Your task to perform on an android device: Go to Google maps Image 0: 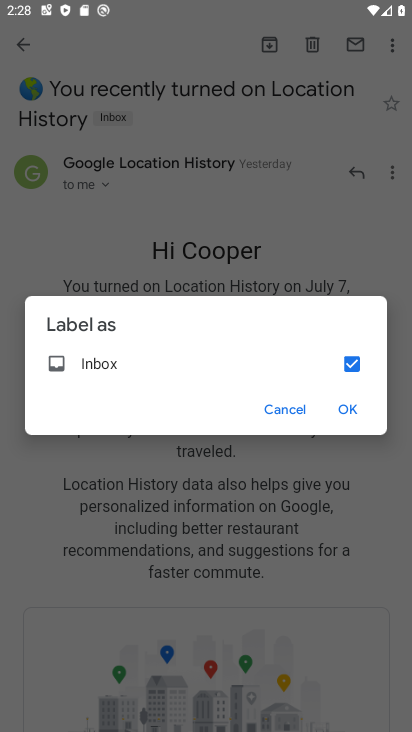
Step 0: click (330, 406)
Your task to perform on an android device: Go to Google maps Image 1: 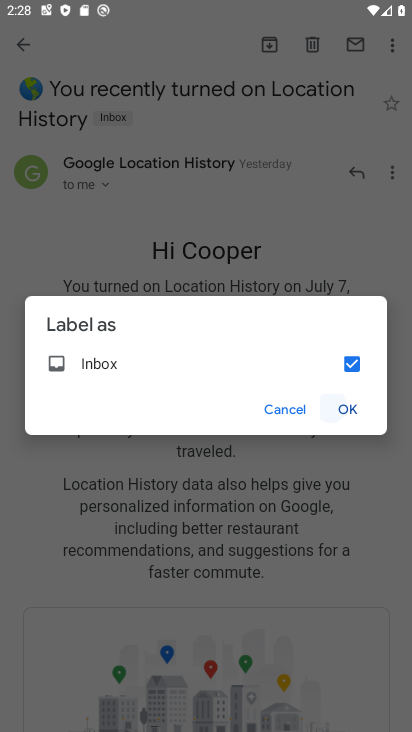
Step 1: press home button
Your task to perform on an android device: Go to Google maps Image 2: 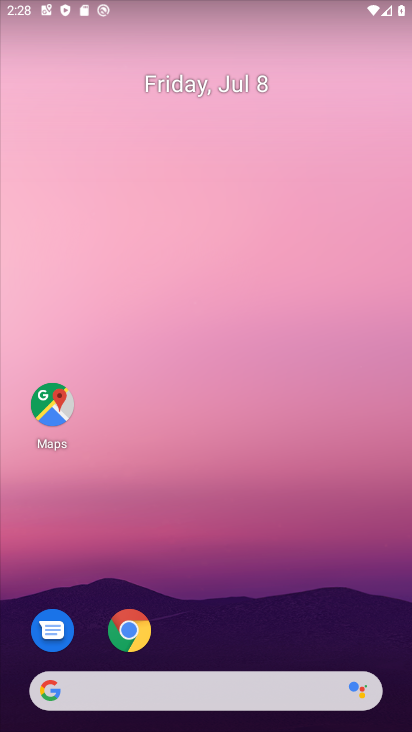
Step 2: click (38, 431)
Your task to perform on an android device: Go to Google maps Image 3: 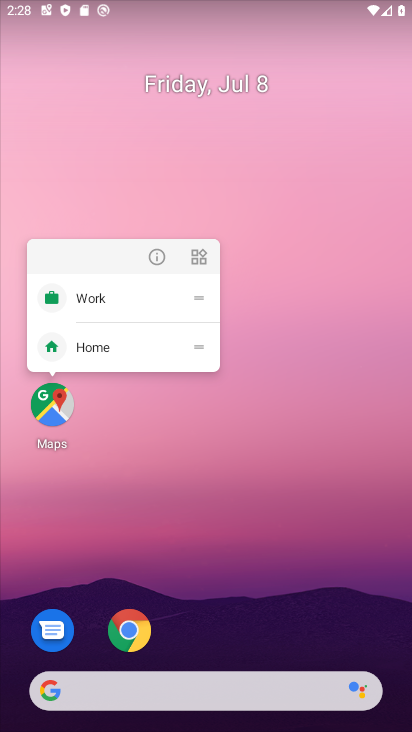
Step 3: click (45, 434)
Your task to perform on an android device: Go to Google maps Image 4: 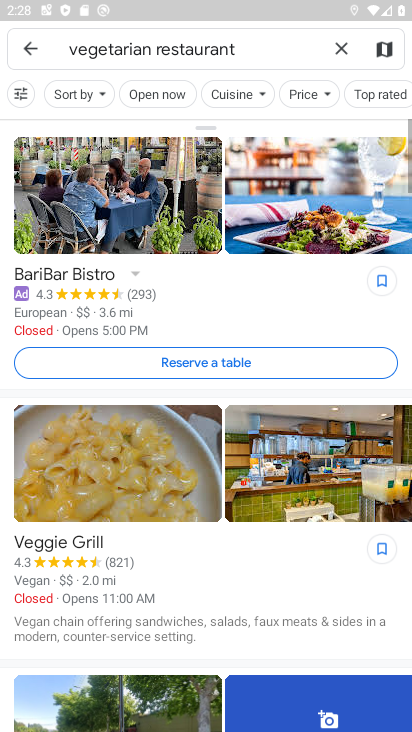
Step 4: click (342, 44)
Your task to perform on an android device: Go to Google maps Image 5: 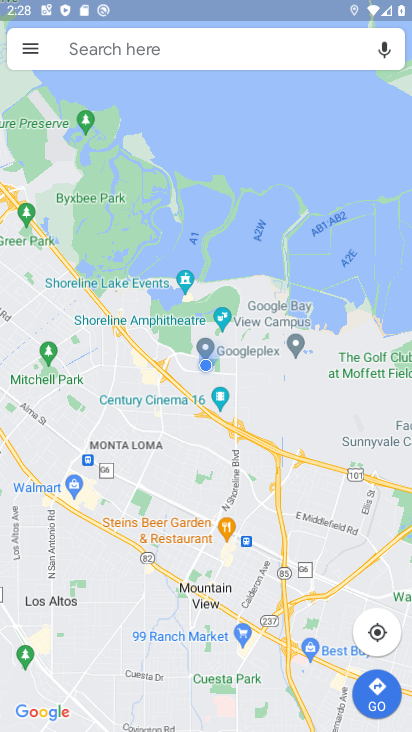
Step 5: task complete